Your task to perform on an android device: Go to accessibility settings Image 0: 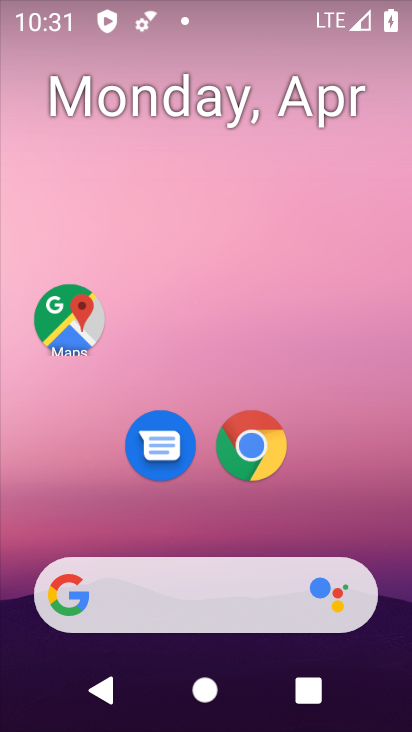
Step 0: drag from (221, 555) to (224, 126)
Your task to perform on an android device: Go to accessibility settings Image 1: 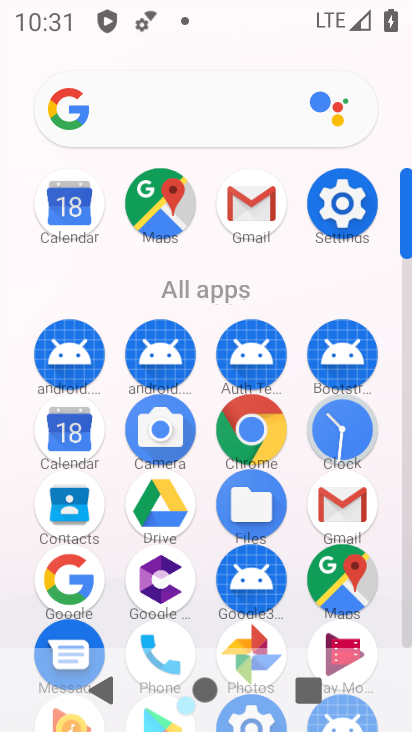
Step 1: click (345, 198)
Your task to perform on an android device: Go to accessibility settings Image 2: 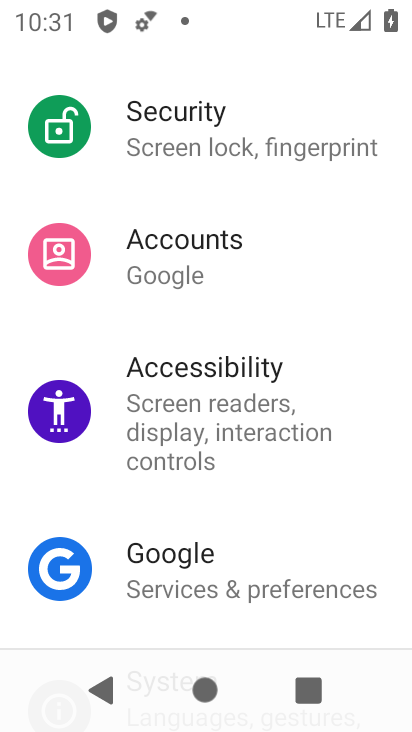
Step 2: click (195, 425)
Your task to perform on an android device: Go to accessibility settings Image 3: 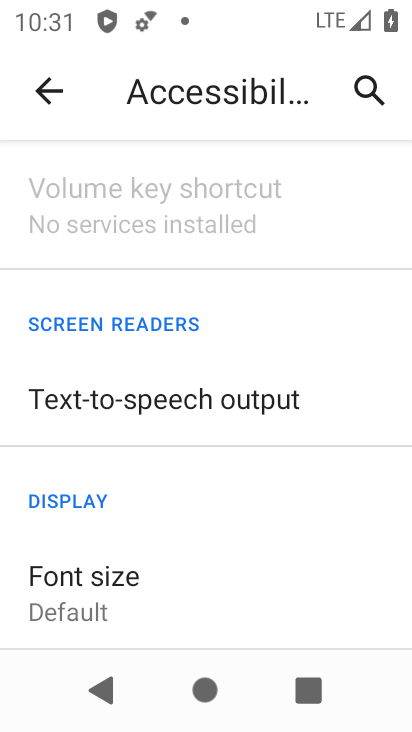
Step 3: task complete